Your task to perform on an android device: Go to sound settings Image 0: 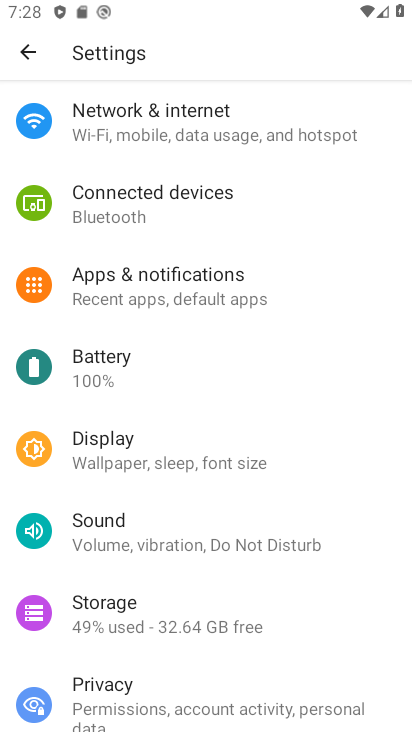
Step 0: drag from (151, 498) to (162, 345)
Your task to perform on an android device: Go to sound settings Image 1: 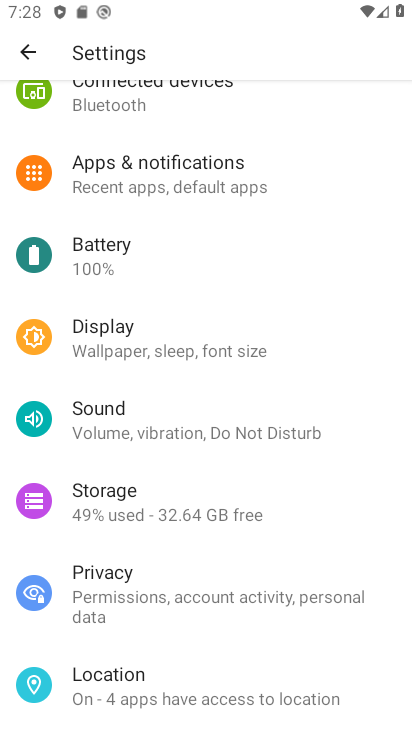
Step 1: drag from (156, 531) to (154, 386)
Your task to perform on an android device: Go to sound settings Image 2: 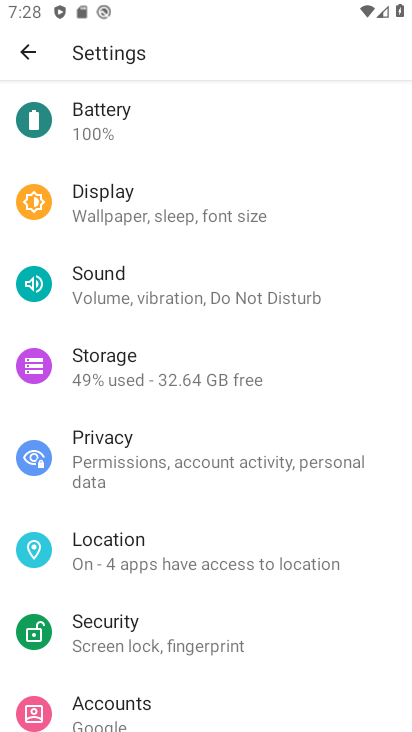
Step 2: drag from (149, 511) to (158, 426)
Your task to perform on an android device: Go to sound settings Image 3: 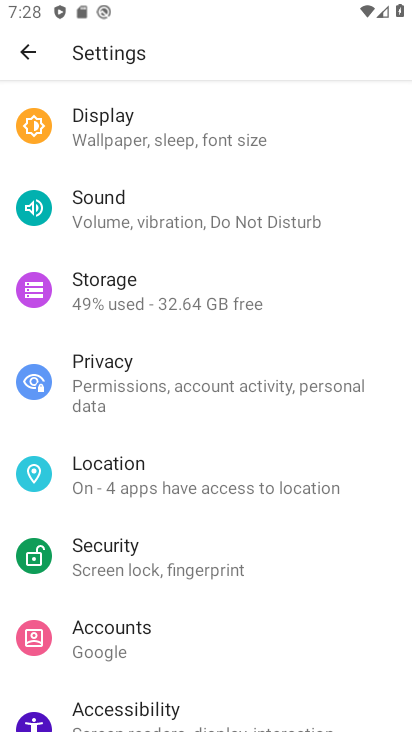
Step 3: click (166, 221)
Your task to perform on an android device: Go to sound settings Image 4: 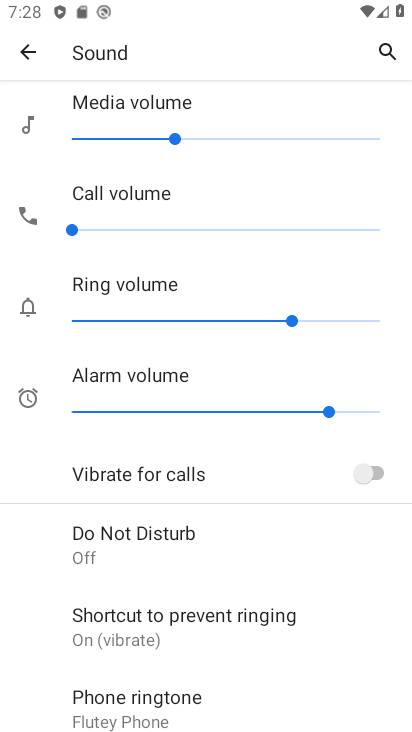
Step 4: task complete